Your task to perform on an android device: turn off picture-in-picture Image 0: 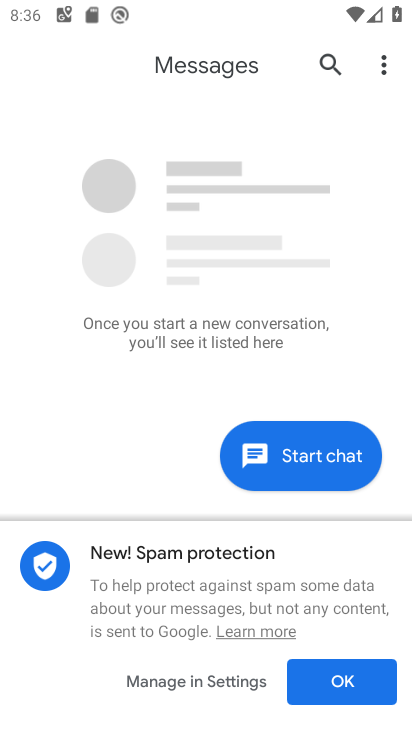
Step 0: press home button
Your task to perform on an android device: turn off picture-in-picture Image 1: 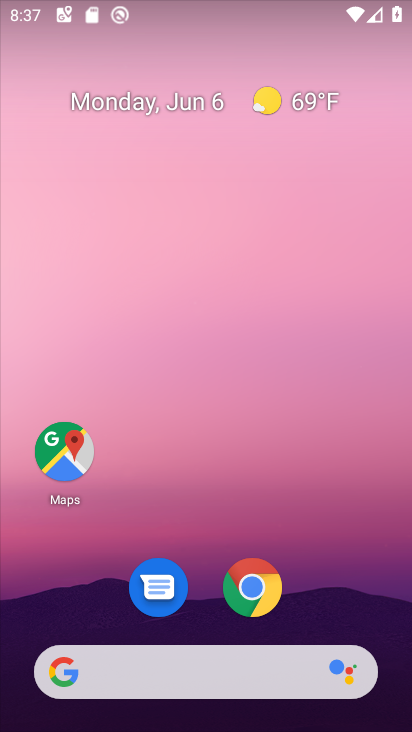
Step 1: drag from (340, 577) to (357, 97)
Your task to perform on an android device: turn off picture-in-picture Image 2: 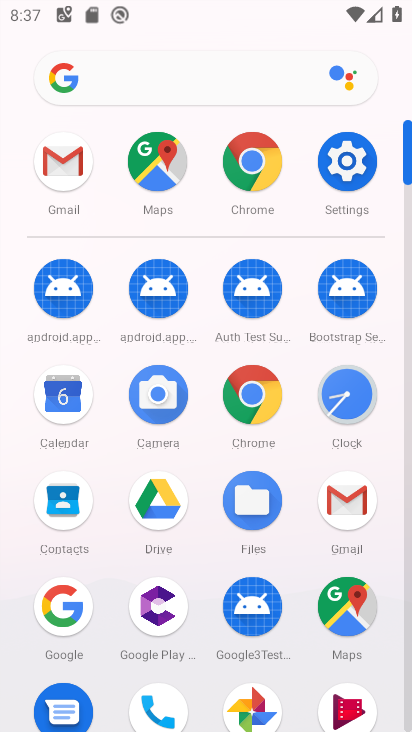
Step 2: click (369, 149)
Your task to perform on an android device: turn off picture-in-picture Image 3: 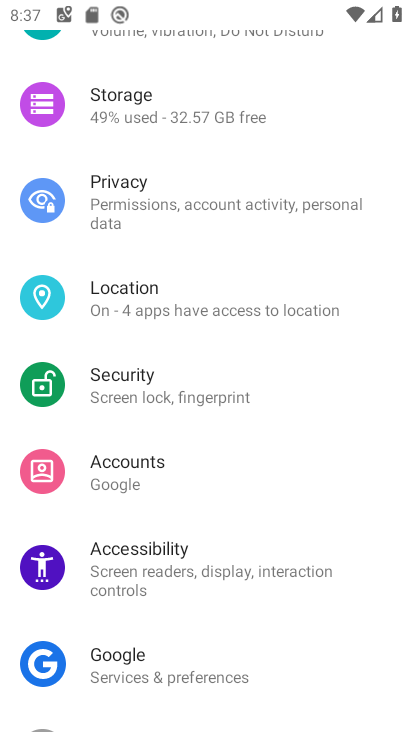
Step 3: drag from (189, 521) to (209, 273)
Your task to perform on an android device: turn off picture-in-picture Image 4: 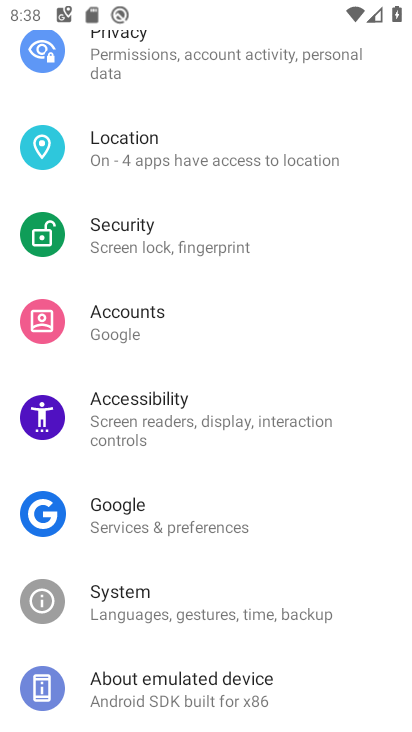
Step 4: drag from (210, 208) to (224, 485)
Your task to perform on an android device: turn off picture-in-picture Image 5: 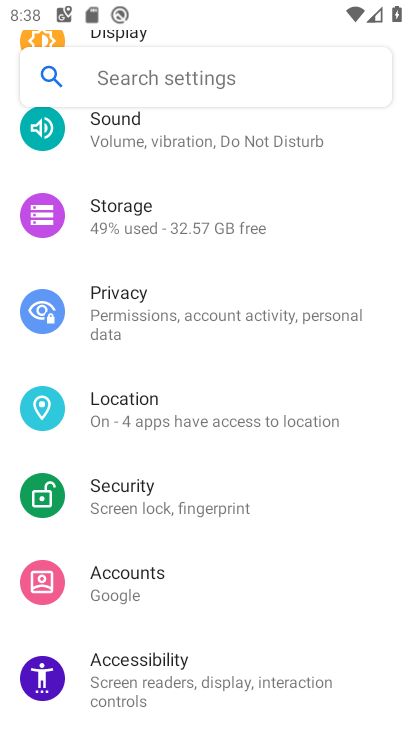
Step 5: drag from (272, 253) to (247, 514)
Your task to perform on an android device: turn off picture-in-picture Image 6: 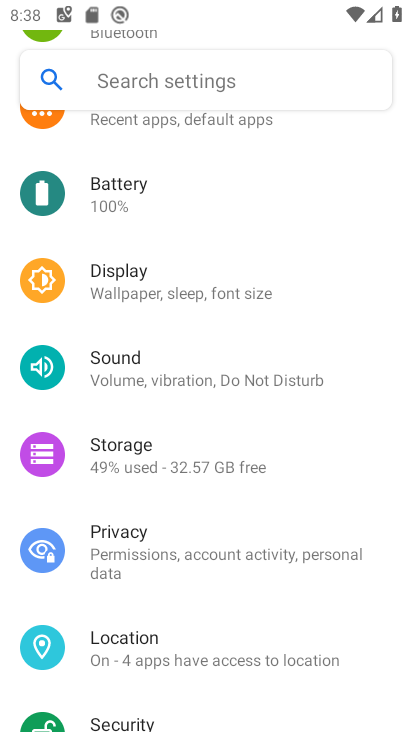
Step 6: drag from (230, 214) to (236, 523)
Your task to perform on an android device: turn off picture-in-picture Image 7: 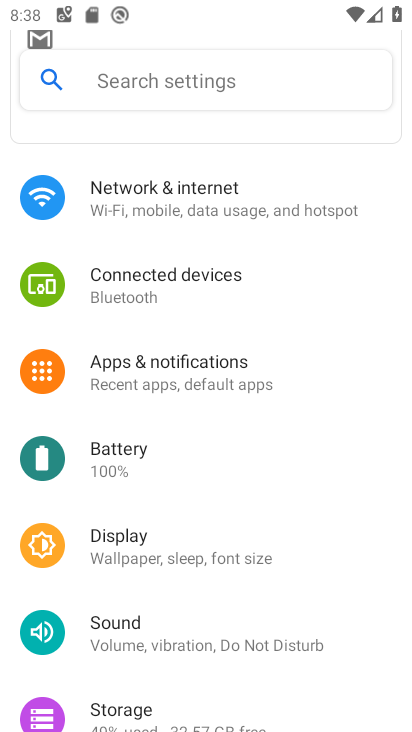
Step 7: click (203, 366)
Your task to perform on an android device: turn off picture-in-picture Image 8: 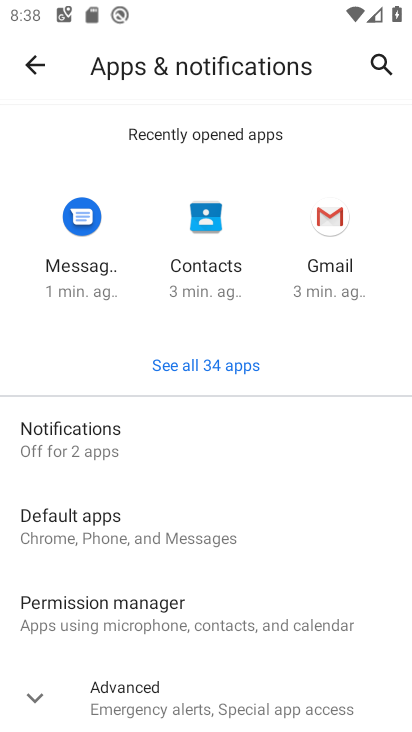
Step 8: drag from (248, 617) to (267, 410)
Your task to perform on an android device: turn off picture-in-picture Image 9: 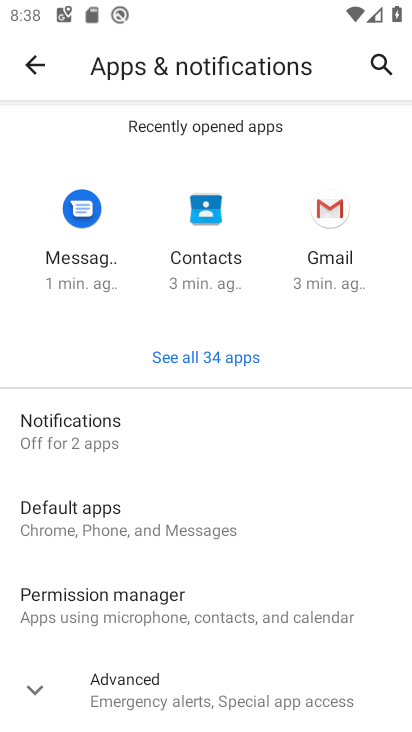
Step 9: click (184, 678)
Your task to perform on an android device: turn off picture-in-picture Image 10: 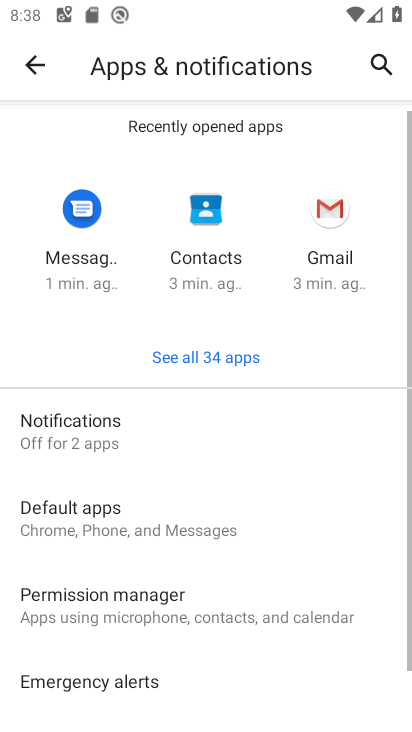
Step 10: drag from (192, 672) to (243, 391)
Your task to perform on an android device: turn off picture-in-picture Image 11: 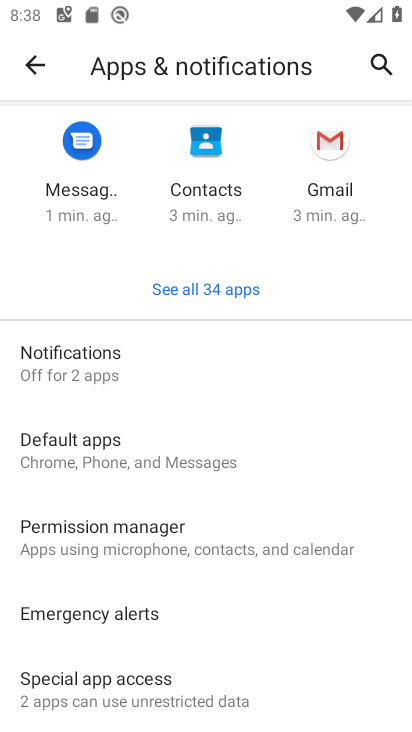
Step 11: click (180, 667)
Your task to perform on an android device: turn off picture-in-picture Image 12: 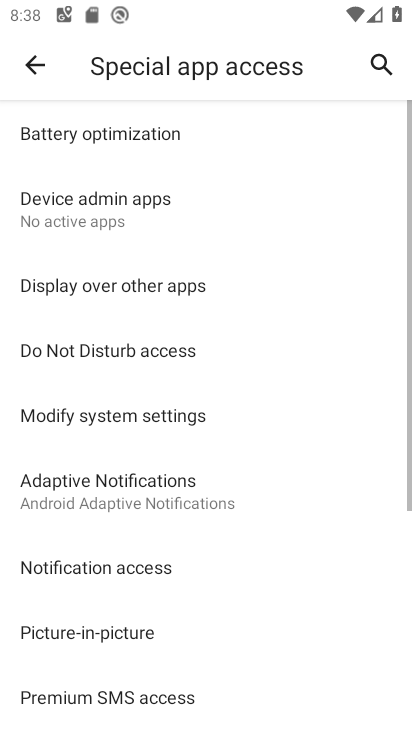
Step 12: drag from (265, 684) to (286, 477)
Your task to perform on an android device: turn off picture-in-picture Image 13: 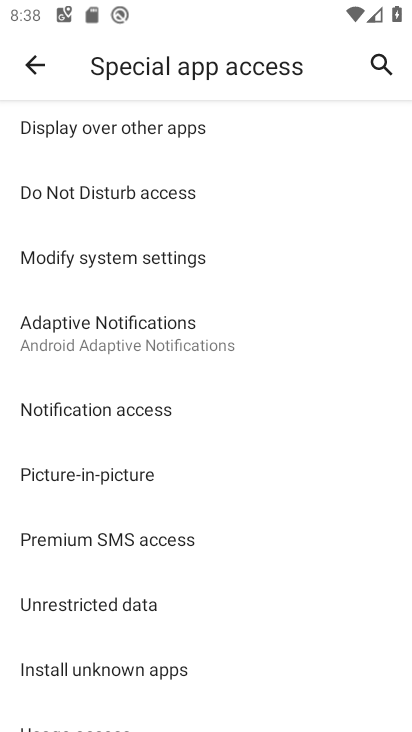
Step 13: click (161, 467)
Your task to perform on an android device: turn off picture-in-picture Image 14: 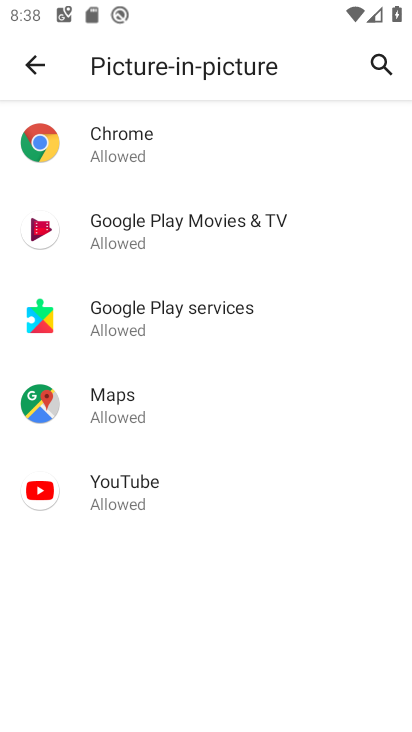
Step 14: click (207, 161)
Your task to perform on an android device: turn off picture-in-picture Image 15: 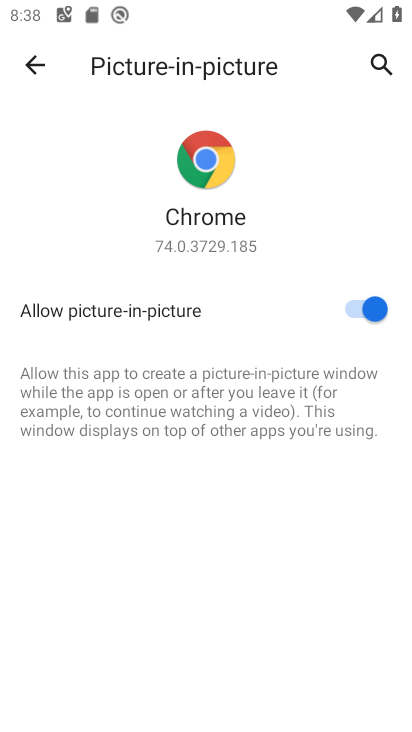
Step 15: click (366, 304)
Your task to perform on an android device: turn off picture-in-picture Image 16: 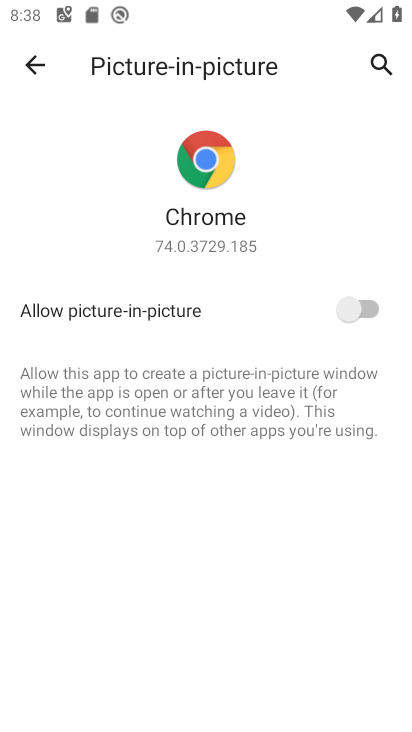
Step 16: task complete